Your task to perform on an android device: show emergency info Image 0: 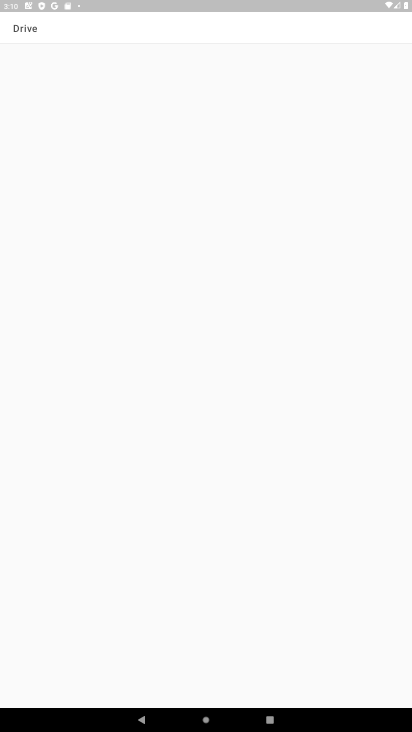
Step 0: press home button
Your task to perform on an android device: show emergency info Image 1: 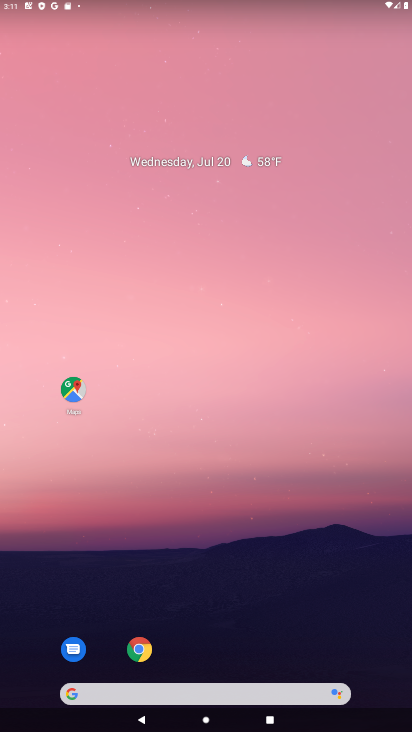
Step 1: drag from (221, 650) to (221, 98)
Your task to perform on an android device: show emergency info Image 2: 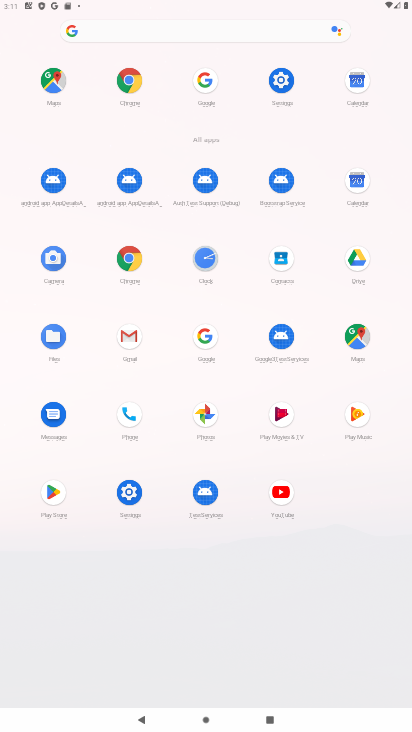
Step 2: click (283, 80)
Your task to perform on an android device: show emergency info Image 3: 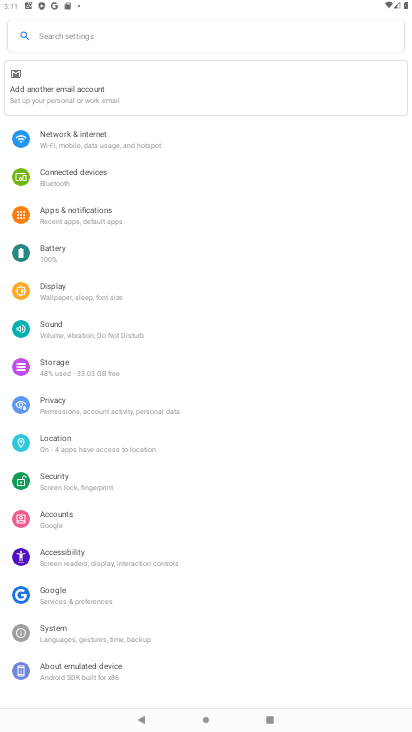
Step 3: click (74, 668)
Your task to perform on an android device: show emergency info Image 4: 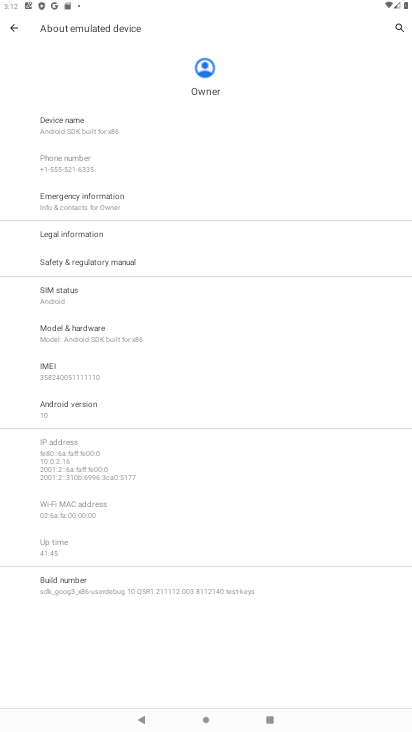
Step 4: click (66, 195)
Your task to perform on an android device: show emergency info Image 5: 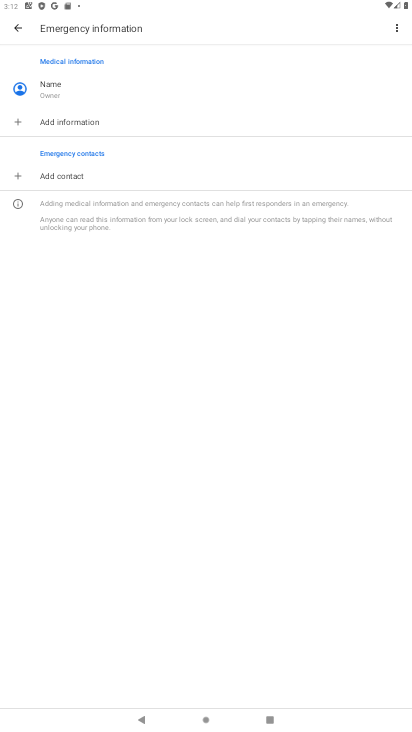
Step 5: task complete